Your task to perform on an android device: turn on javascript in the chrome app Image 0: 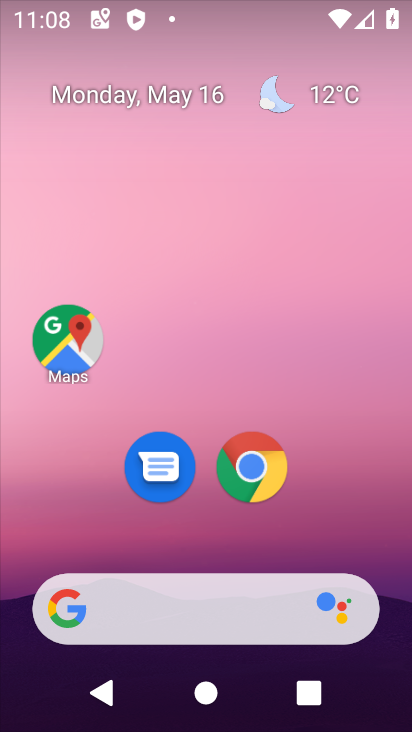
Step 0: click (264, 459)
Your task to perform on an android device: turn on javascript in the chrome app Image 1: 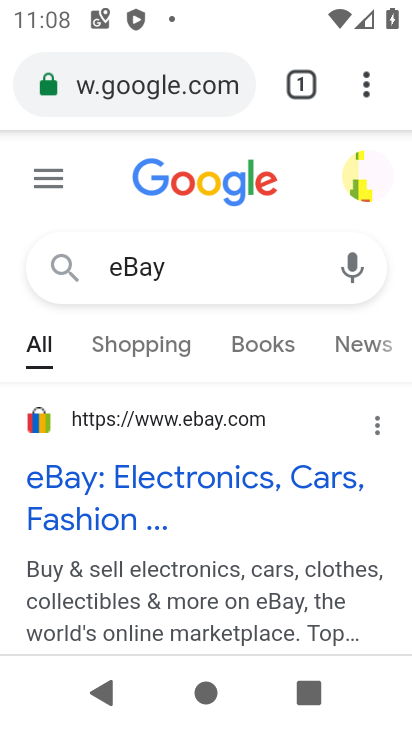
Step 1: click (365, 91)
Your task to perform on an android device: turn on javascript in the chrome app Image 2: 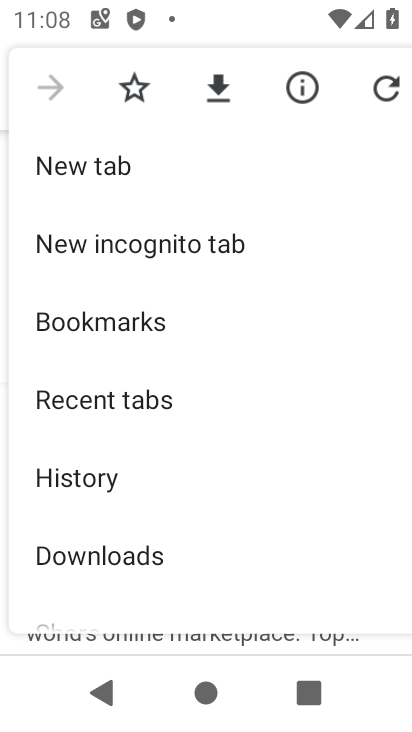
Step 2: drag from (171, 477) to (172, 242)
Your task to perform on an android device: turn on javascript in the chrome app Image 3: 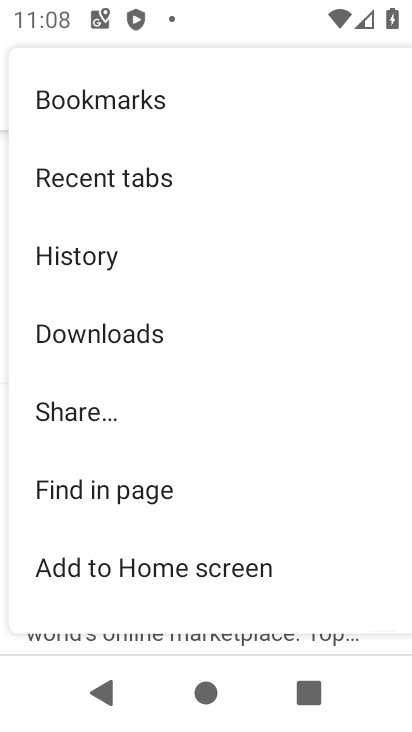
Step 3: drag from (106, 542) to (127, 268)
Your task to perform on an android device: turn on javascript in the chrome app Image 4: 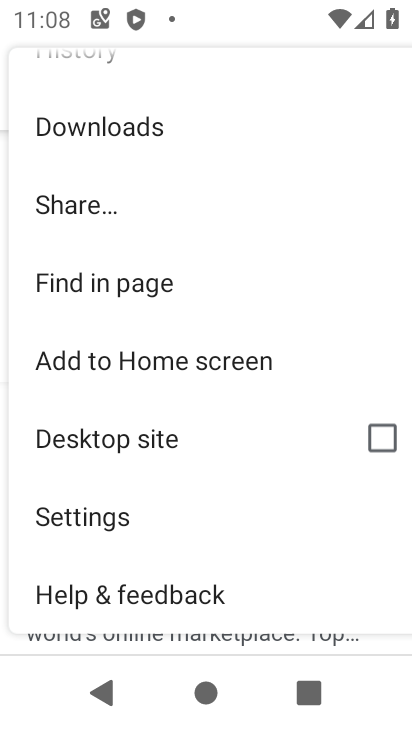
Step 4: click (84, 523)
Your task to perform on an android device: turn on javascript in the chrome app Image 5: 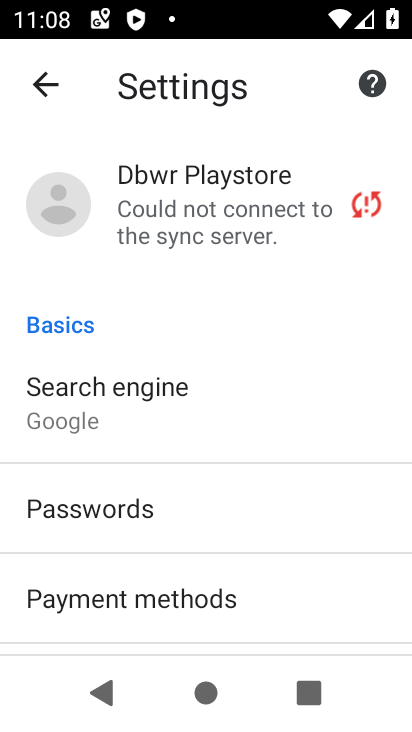
Step 5: drag from (174, 538) to (190, 320)
Your task to perform on an android device: turn on javascript in the chrome app Image 6: 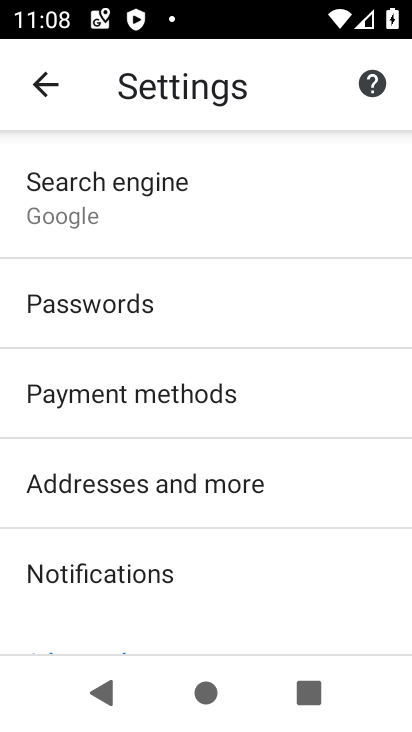
Step 6: drag from (174, 541) to (197, 328)
Your task to perform on an android device: turn on javascript in the chrome app Image 7: 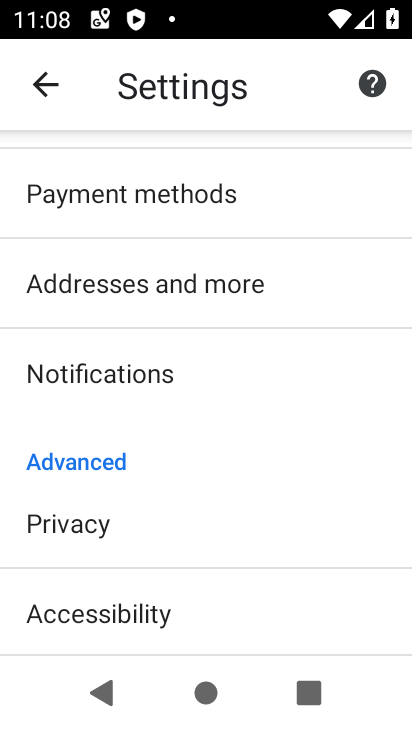
Step 7: drag from (157, 585) to (182, 353)
Your task to perform on an android device: turn on javascript in the chrome app Image 8: 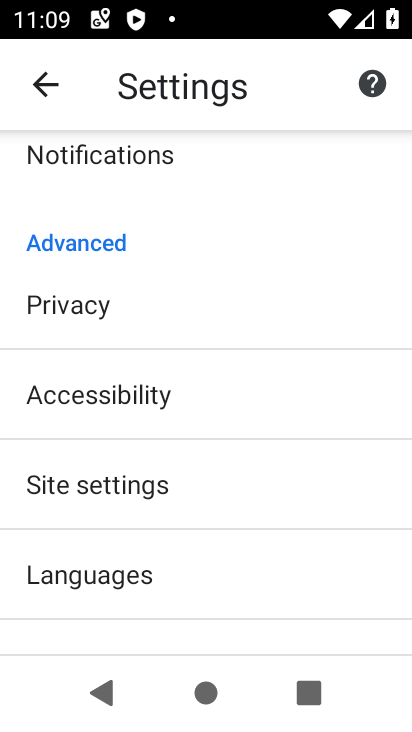
Step 8: click (126, 487)
Your task to perform on an android device: turn on javascript in the chrome app Image 9: 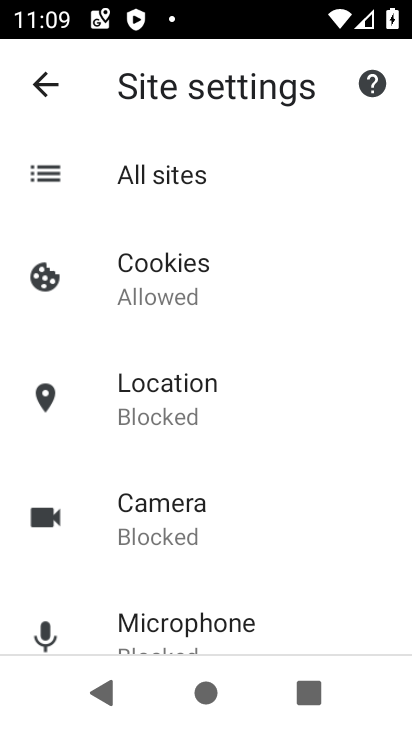
Step 9: drag from (180, 543) to (224, 267)
Your task to perform on an android device: turn on javascript in the chrome app Image 10: 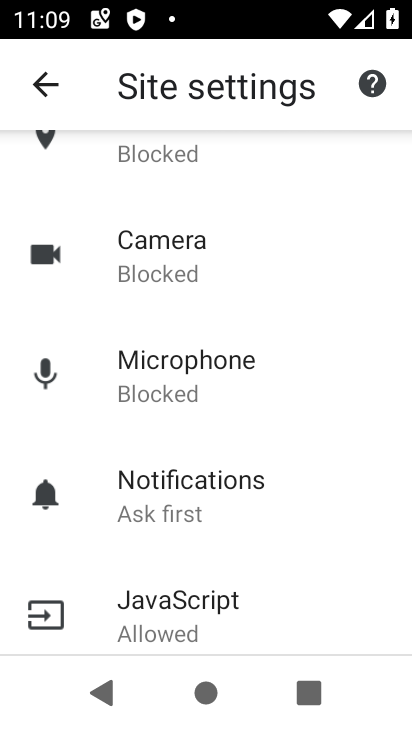
Step 10: drag from (168, 544) to (207, 379)
Your task to perform on an android device: turn on javascript in the chrome app Image 11: 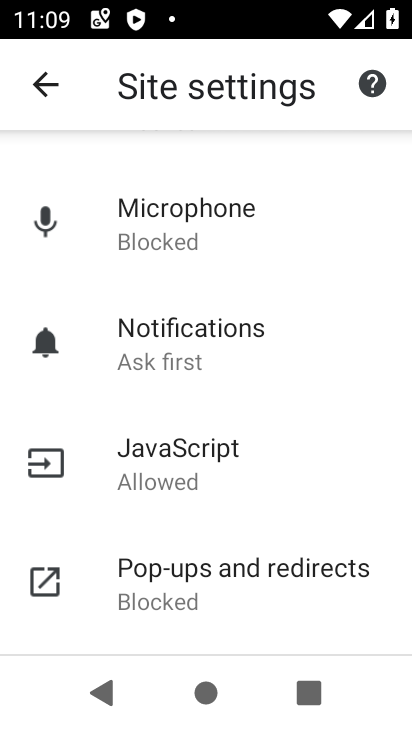
Step 11: click (193, 470)
Your task to perform on an android device: turn on javascript in the chrome app Image 12: 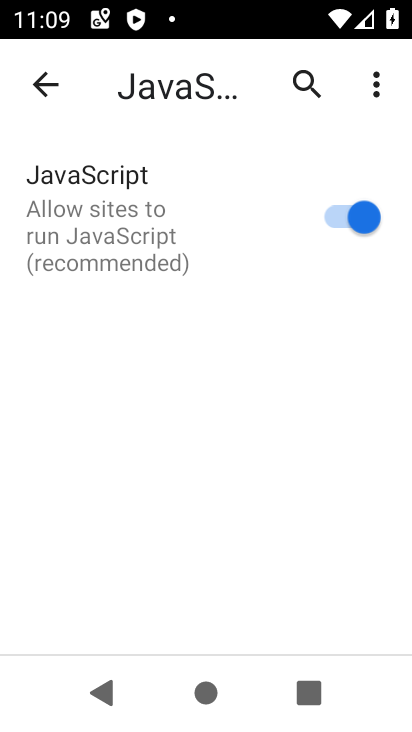
Step 12: task complete